Your task to perform on an android device: turn off sleep mode Image 0: 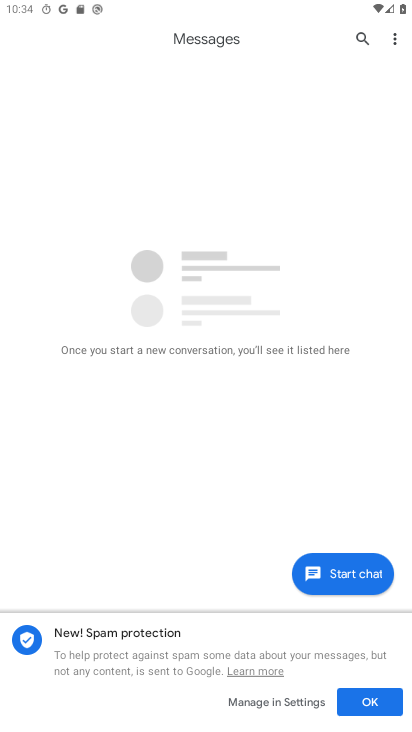
Step 0: drag from (283, 565) to (190, 135)
Your task to perform on an android device: turn off sleep mode Image 1: 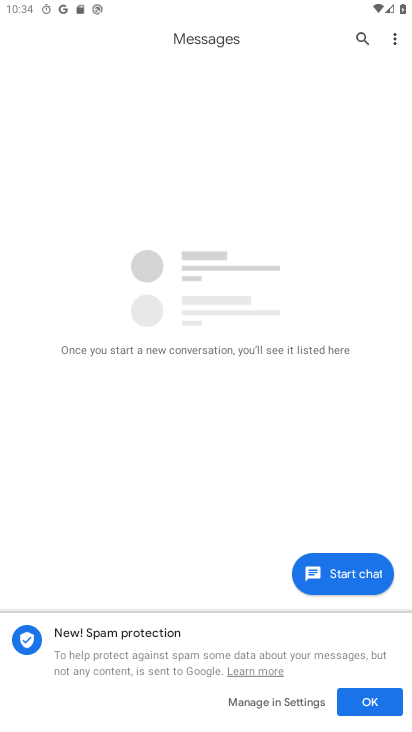
Step 1: press home button
Your task to perform on an android device: turn off sleep mode Image 2: 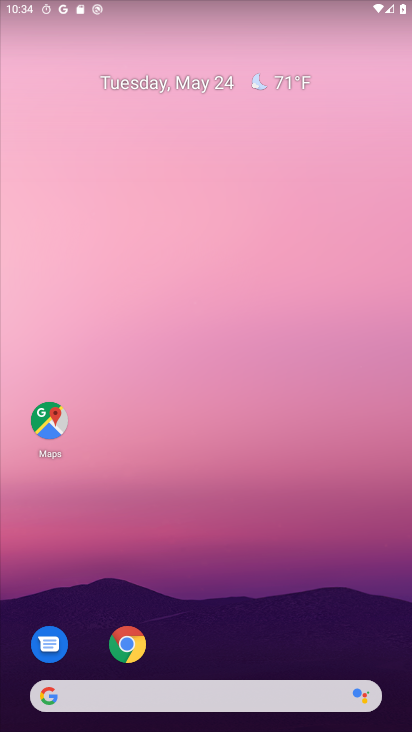
Step 2: click (163, 58)
Your task to perform on an android device: turn off sleep mode Image 3: 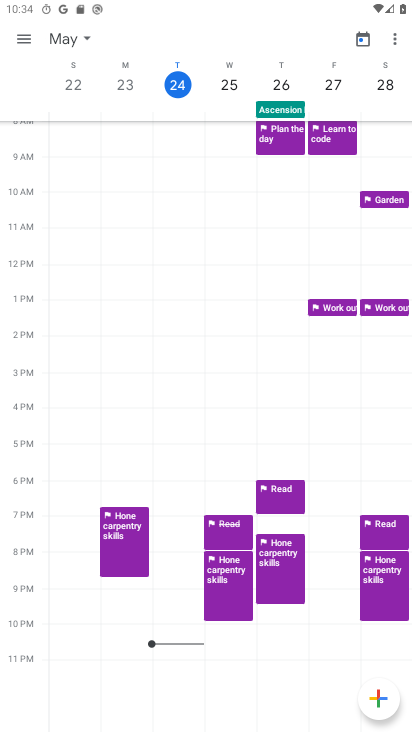
Step 3: press home button
Your task to perform on an android device: turn off sleep mode Image 4: 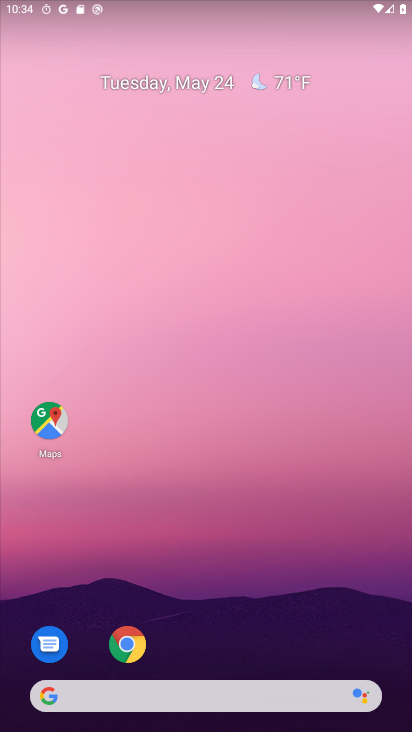
Step 4: drag from (260, 570) to (195, 0)
Your task to perform on an android device: turn off sleep mode Image 5: 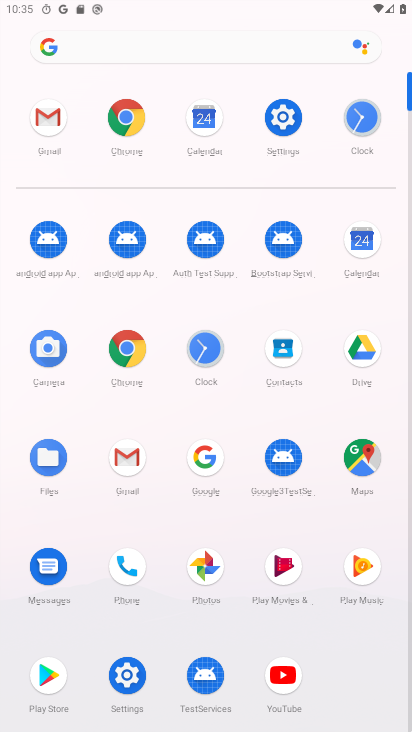
Step 5: click (283, 117)
Your task to perform on an android device: turn off sleep mode Image 6: 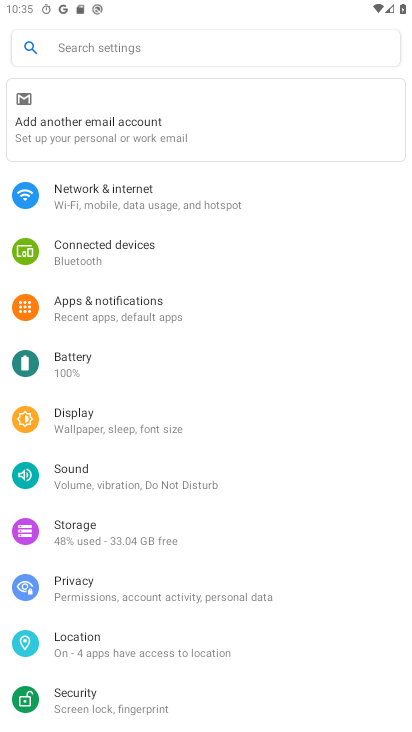
Step 6: click (81, 413)
Your task to perform on an android device: turn off sleep mode Image 7: 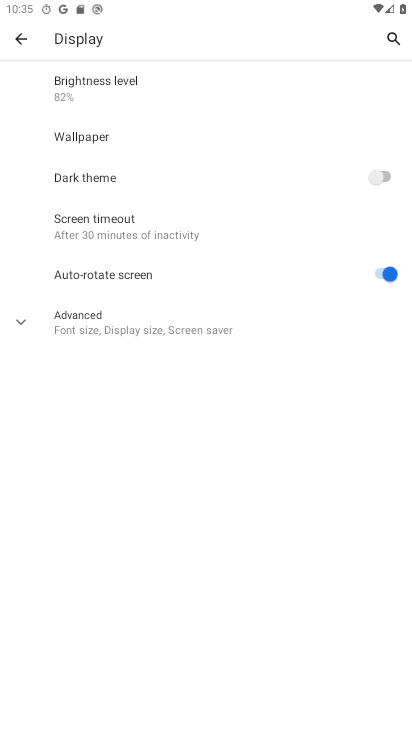
Step 7: task complete